Your task to perform on an android device: uninstall "Truecaller" Image 0: 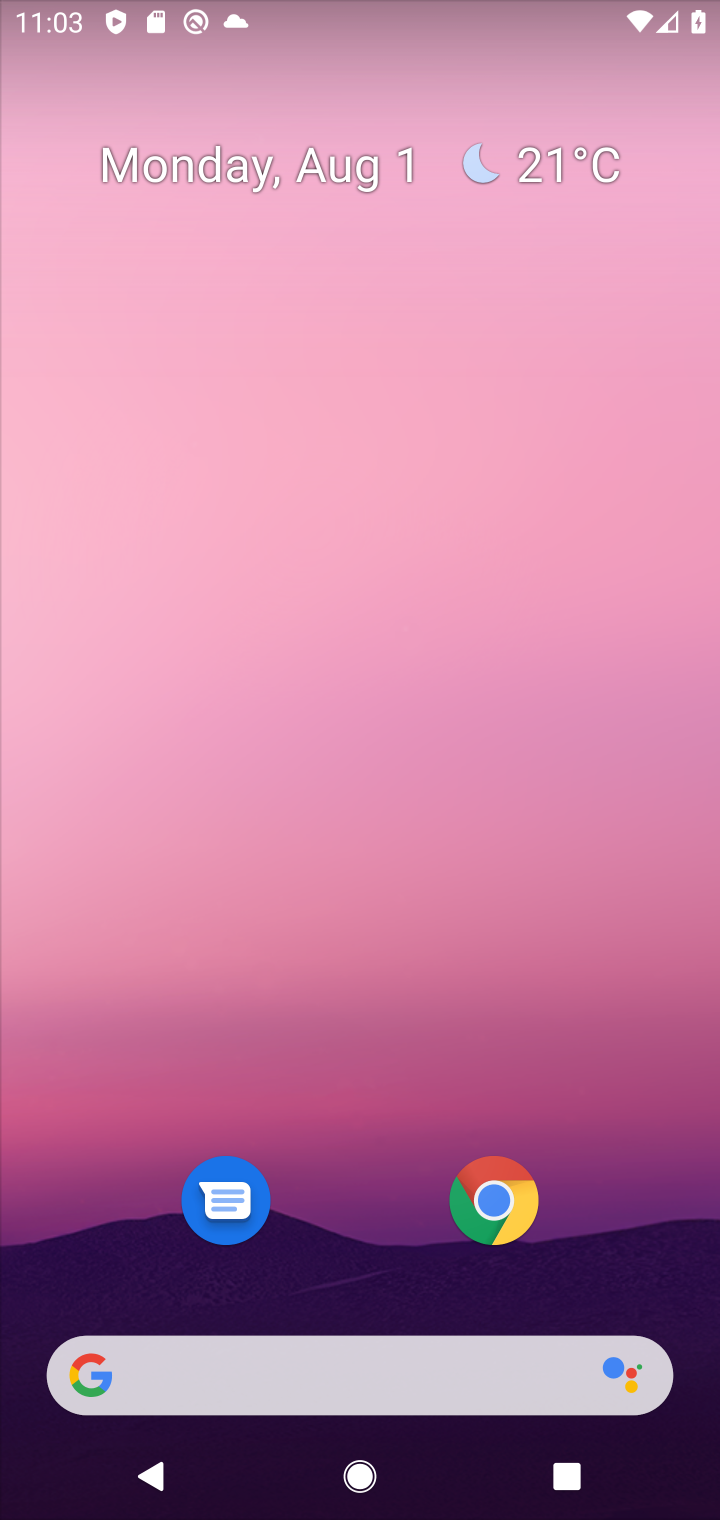
Step 0: drag from (351, 1220) to (388, 126)
Your task to perform on an android device: uninstall "Truecaller" Image 1: 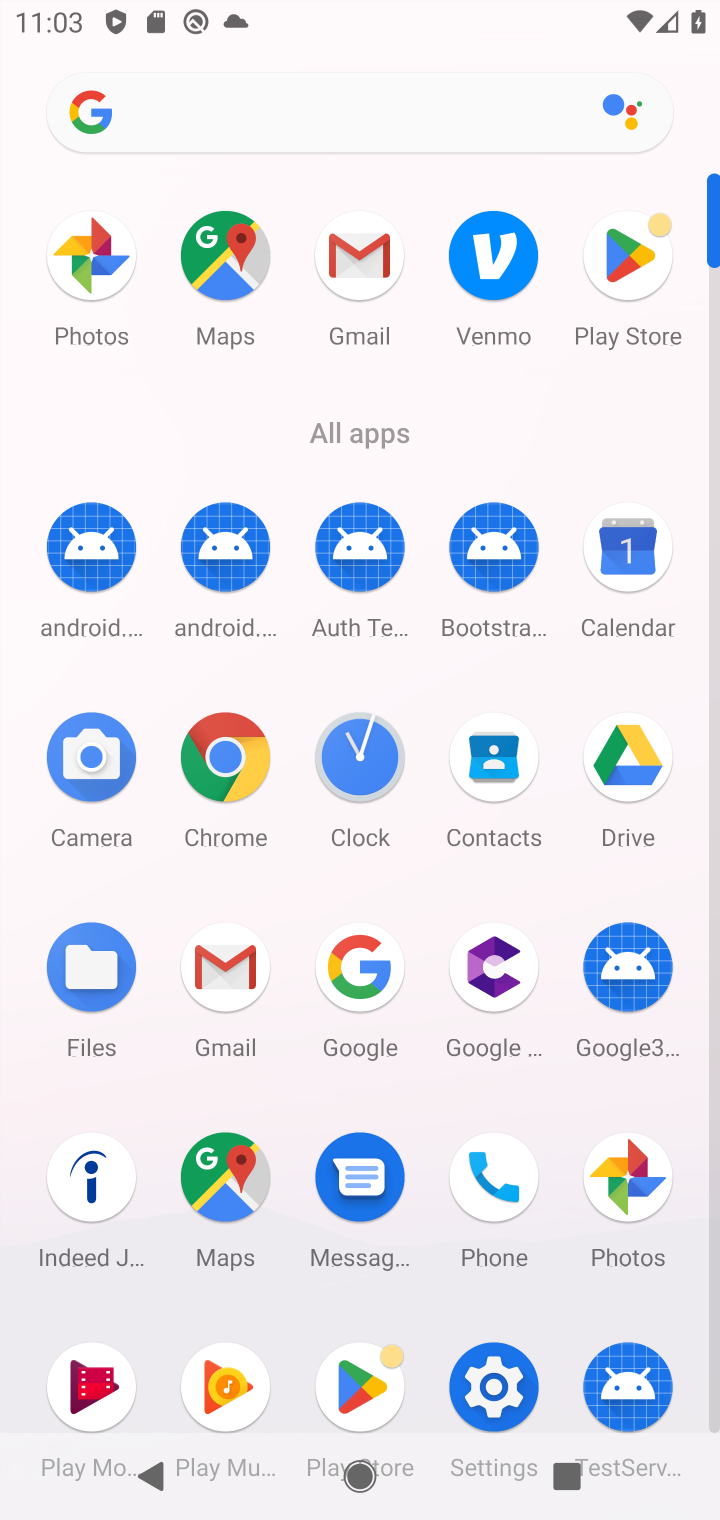
Step 1: click (617, 269)
Your task to perform on an android device: uninstall "Truecaller" Image 2: 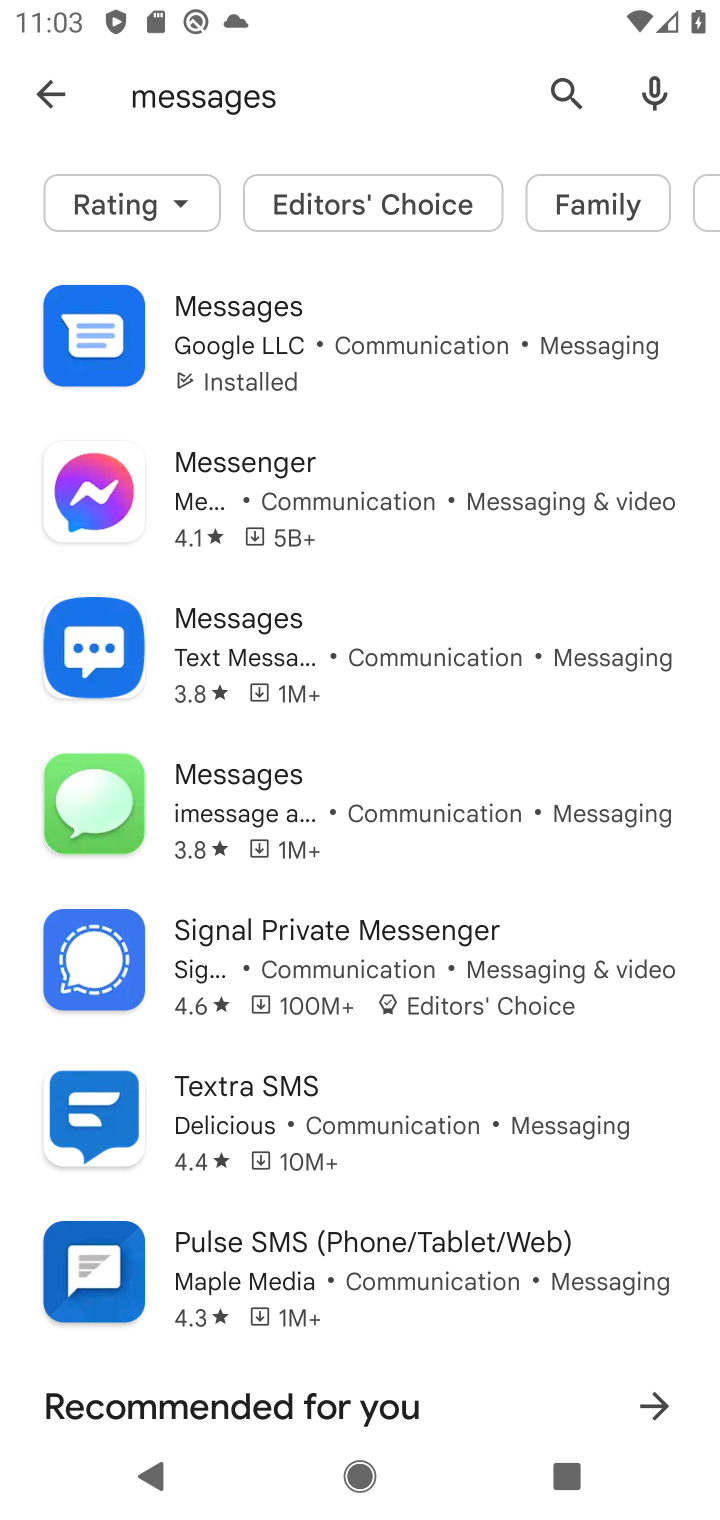
Step 2: click (570, 91)
Your task to perform on an android device: uninstall "Truecaller" Image 3: 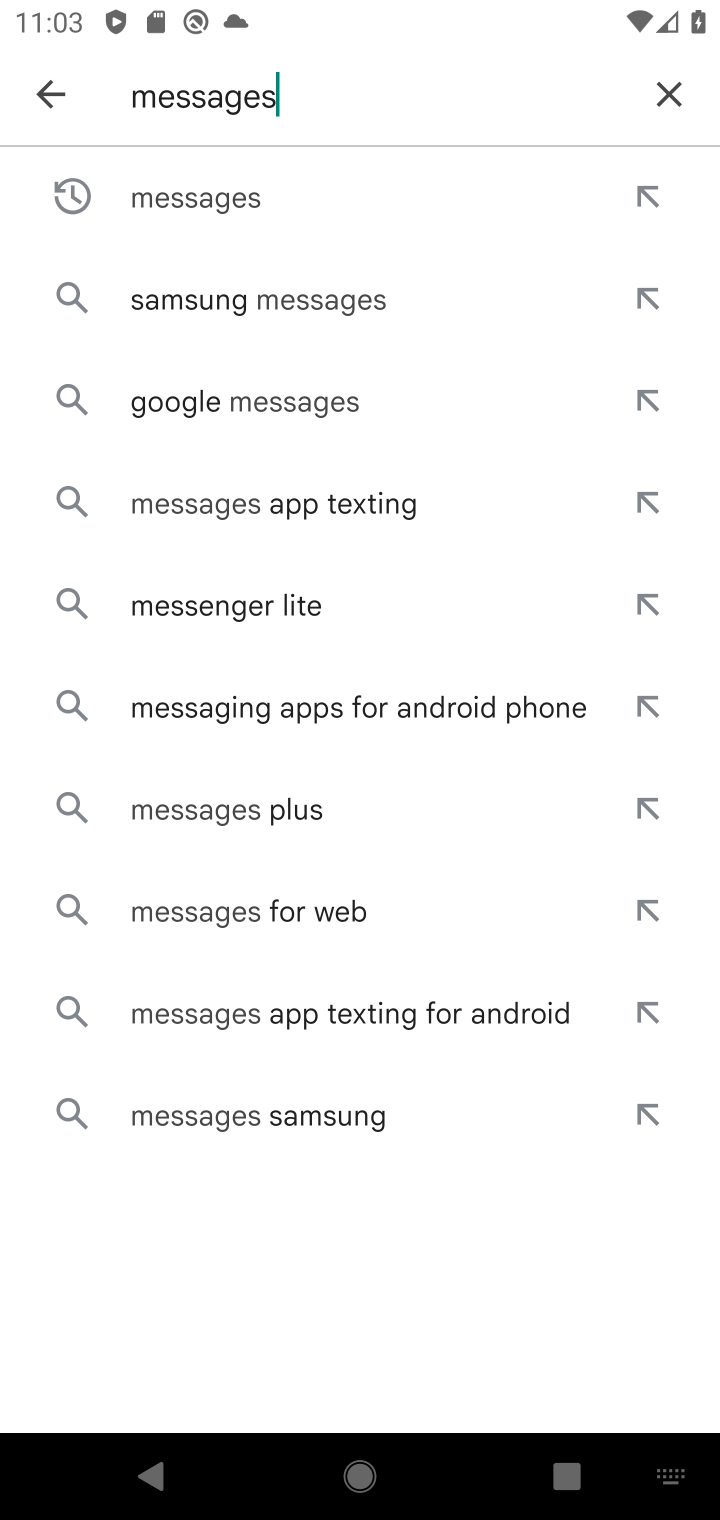
Step 3: click (687, 91)
Your task to perform on an android device: uninstall "Truecaller" Image 4: 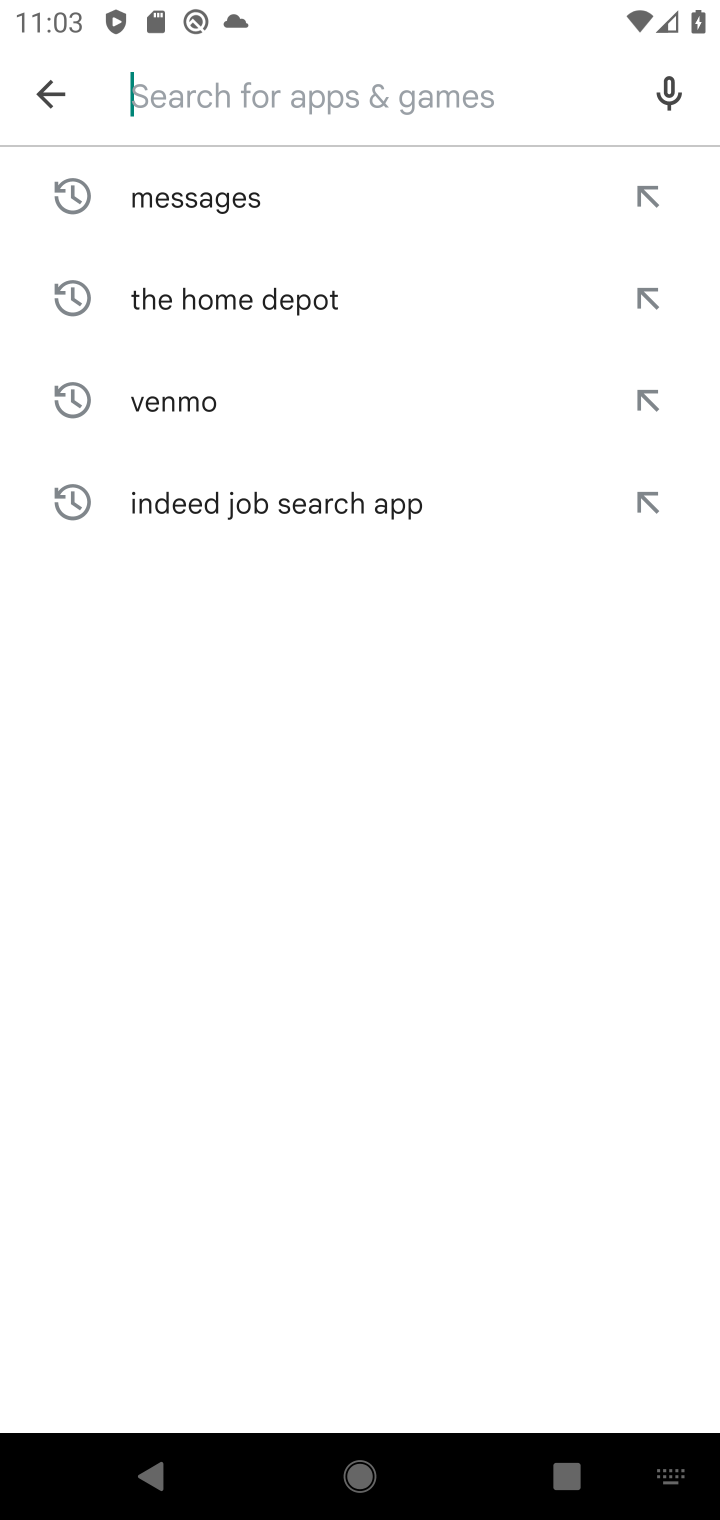
Step 4: type "Truecaller"
Your task to perform on an android device: uninstall "Truecaller" Image 5: 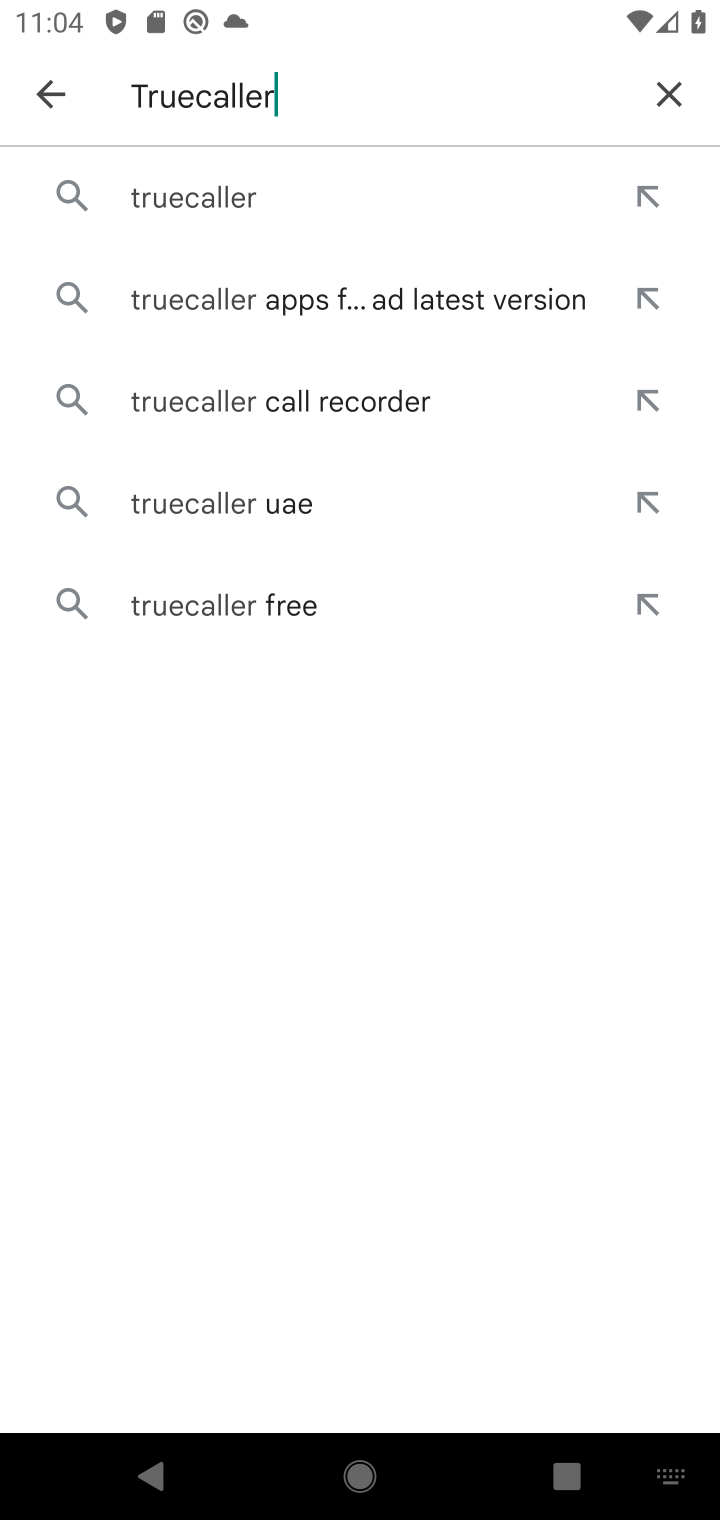
Step 5: click (230, 195)
Your task to perform on an android device: uninstall "Truecaller" Image 6: 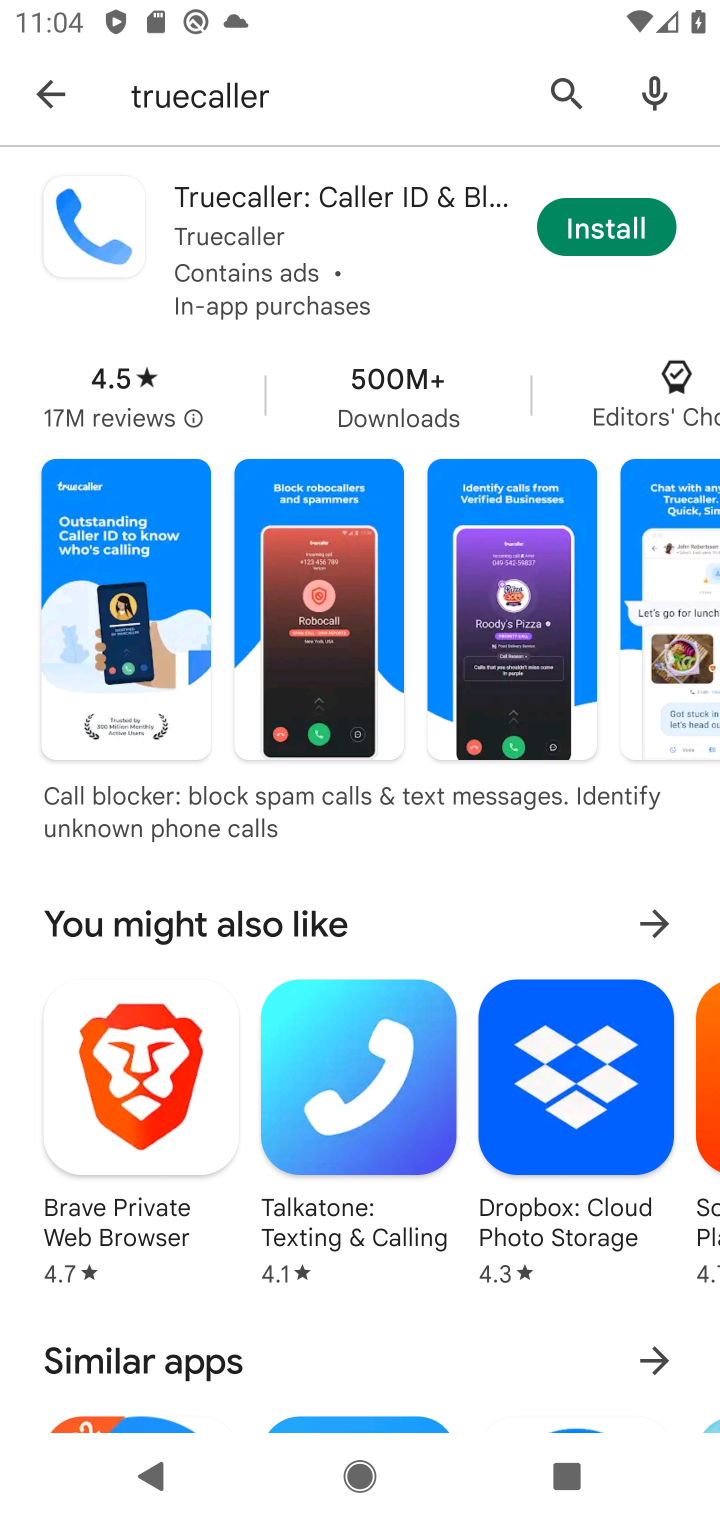
Step 6: task complete